Your task to perform on an android device: Go to ESPN.com Image 0: 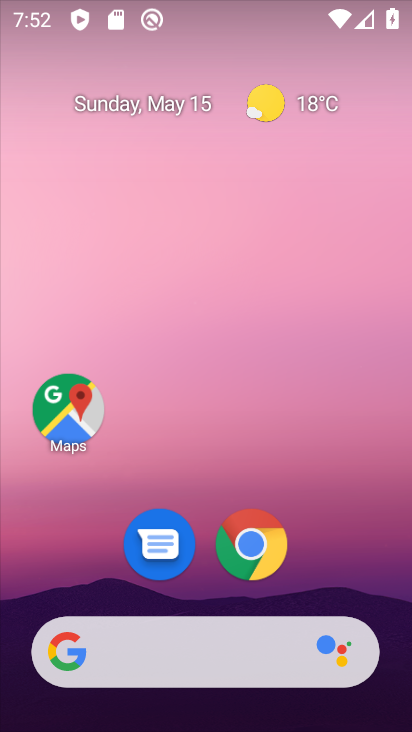
Step 0: click (261, 530)
Your task to perform on an android device: Go to ESPN.com Image 1: 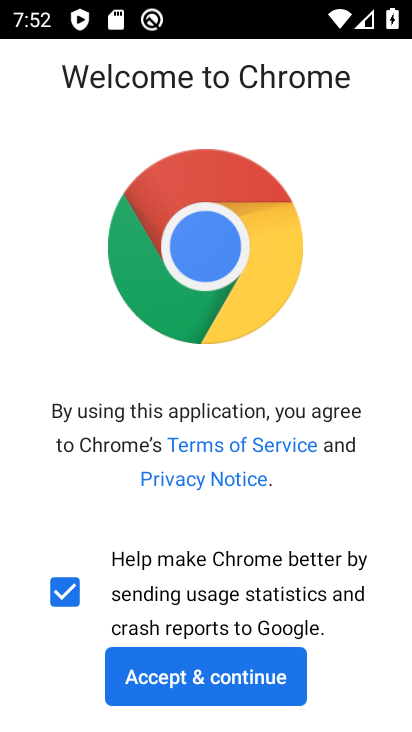
Step 1: click (195, 672)
Your task to perform on an android device: Go to ESPN.com Image 2: 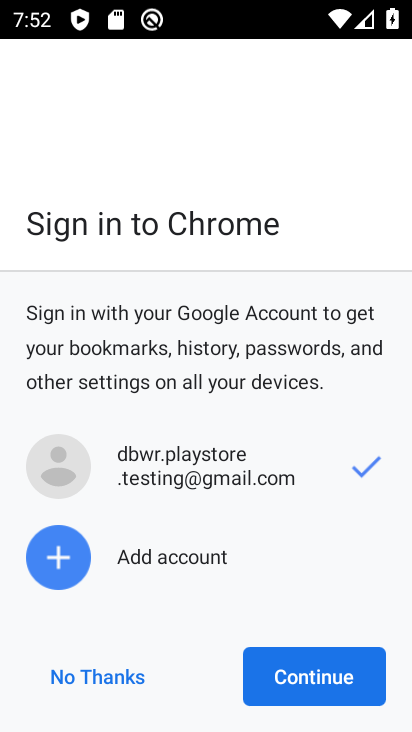
Step 2: click (312, 666)
Your task to perform on an android device: Go to ESPN.com Image 3: 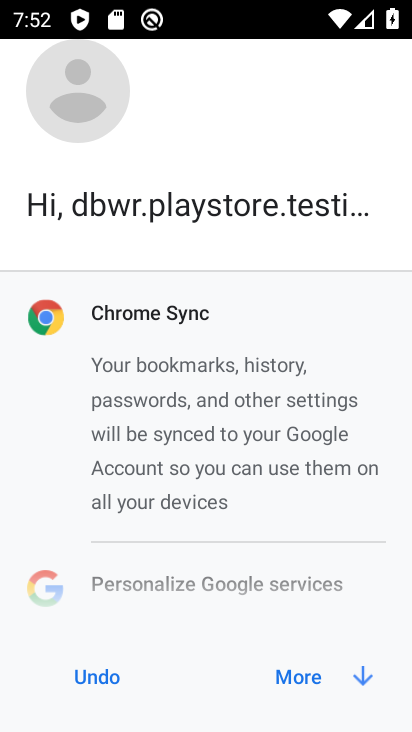
Step 3: click (310, 677)
Your task to perform on an android device: Go to ESPN.com Image 4: 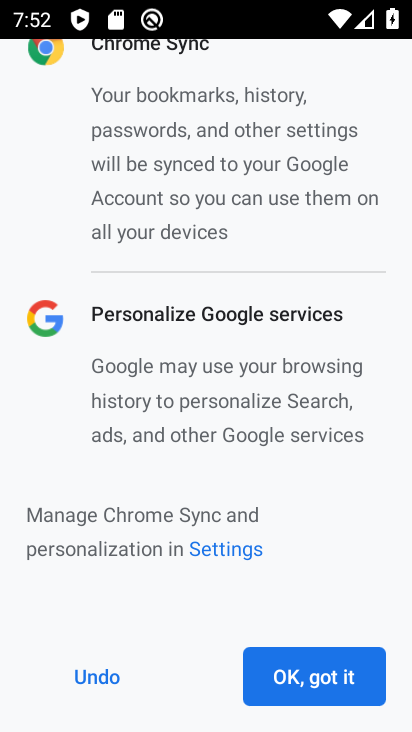
Step 4: click (310, 673)
Your task to perform on an android device: Go to ESPN.com Image 5: 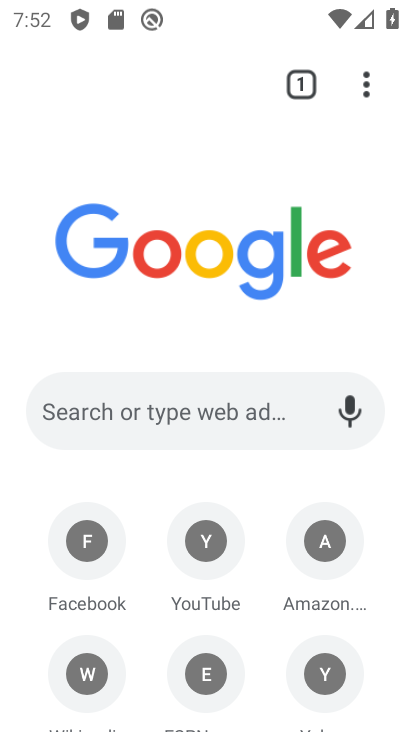
Step 5: click (225, 84)
Your task to perform on an android device: Go to ESPN.com Image 6: 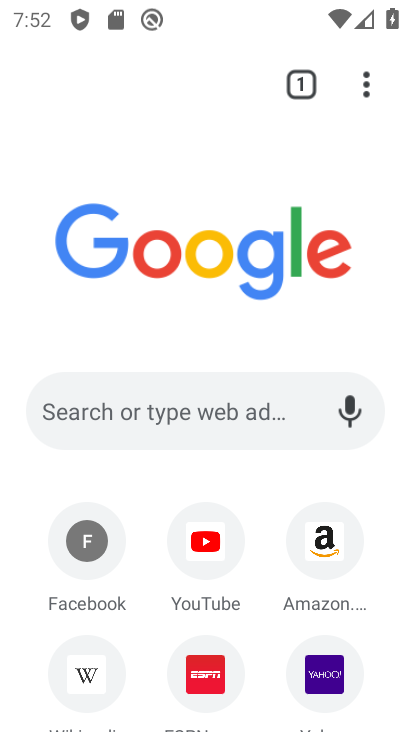
Step 6: click (219, 667)
Your task to perform on an android device: Go to ESPN.com Image 7: 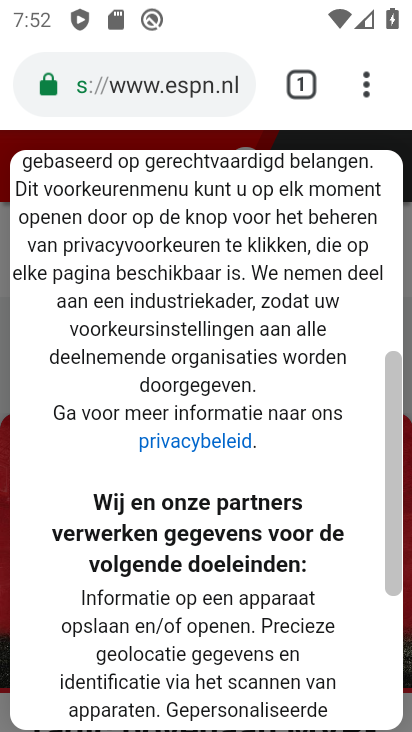
Step 7: task complete